Your task to perform on an android device: View the shopping cart on amazon.com. Image 0: 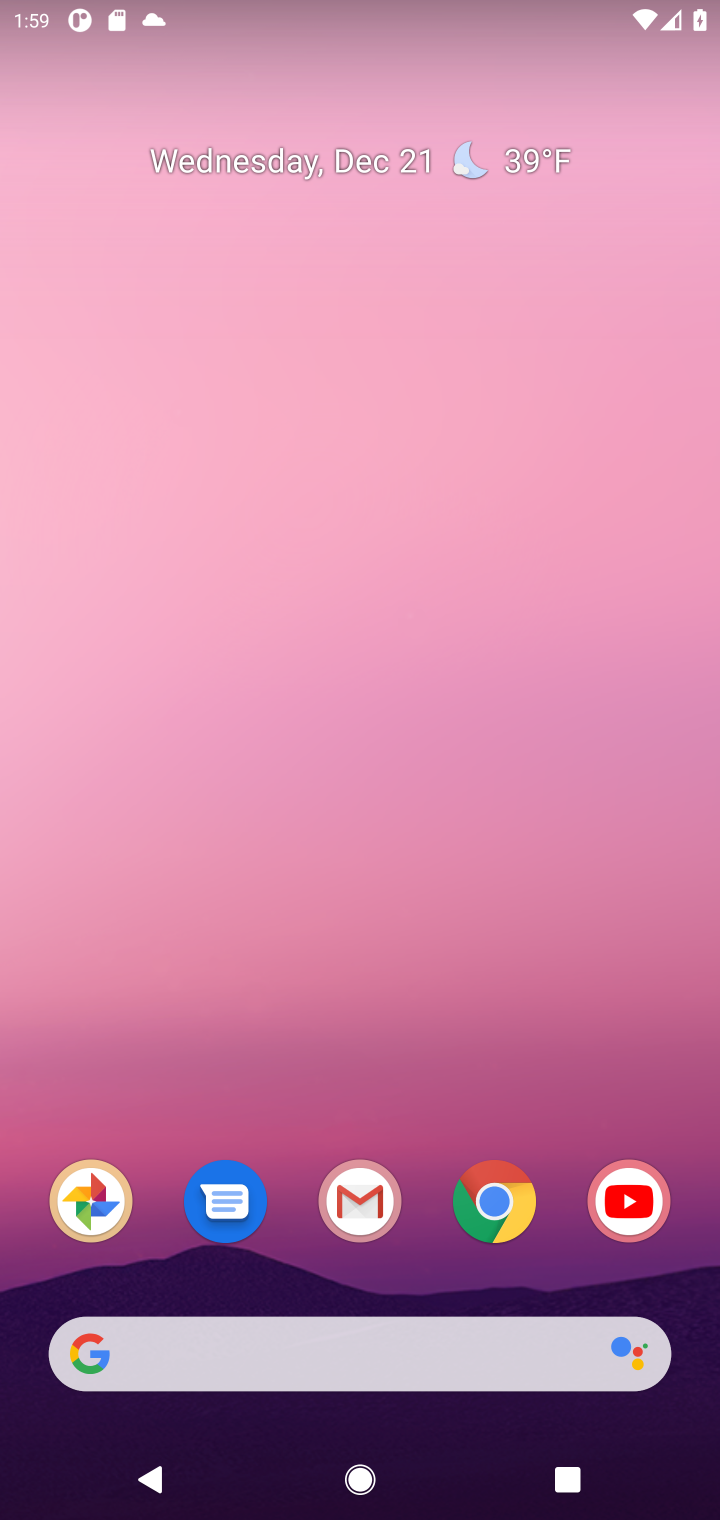
Step 0: click (492, 1206)
Your task to perform on an android device: View the shopping cart on amazon.com. Image 1: 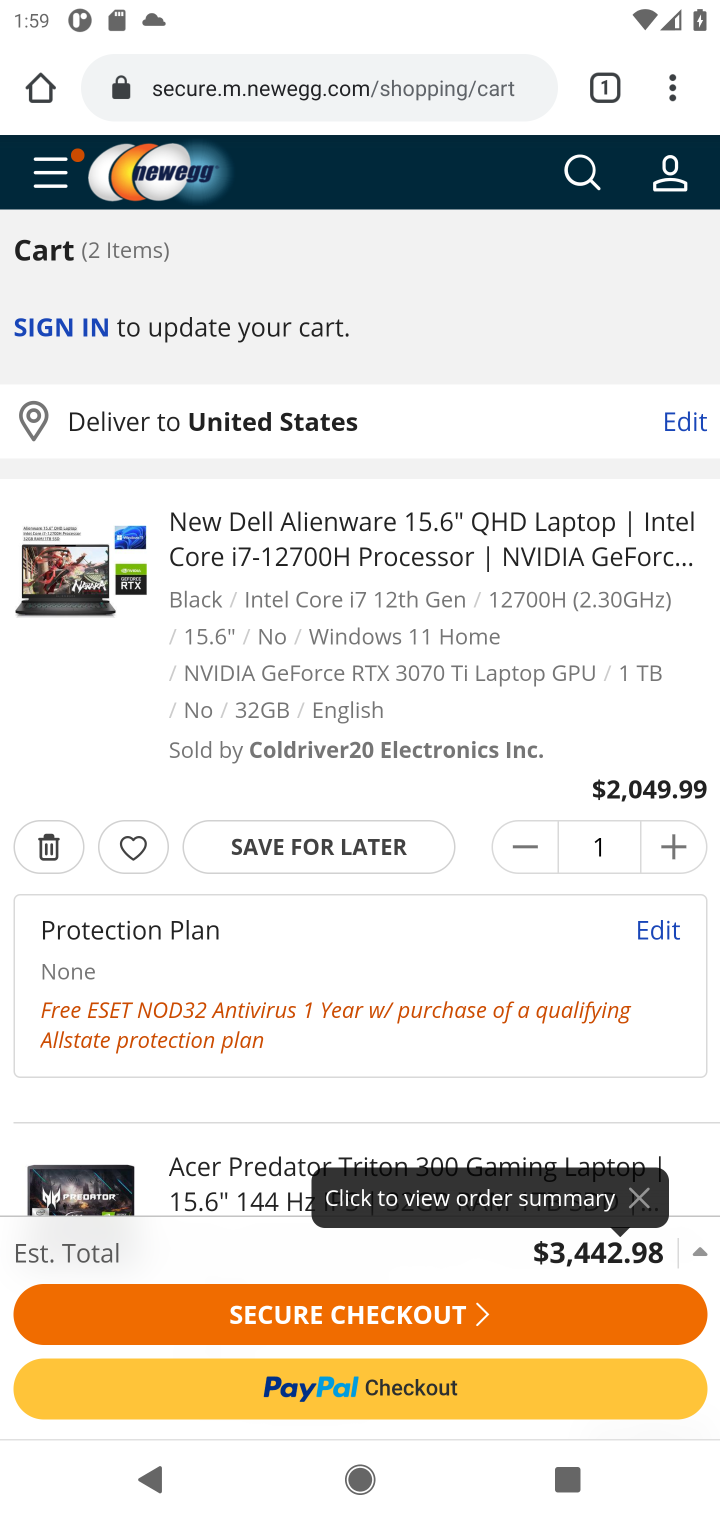
Step 1: click (260, 90)
Your task to perform on an android device: View the shopping cart on amazon.com. Image 2: 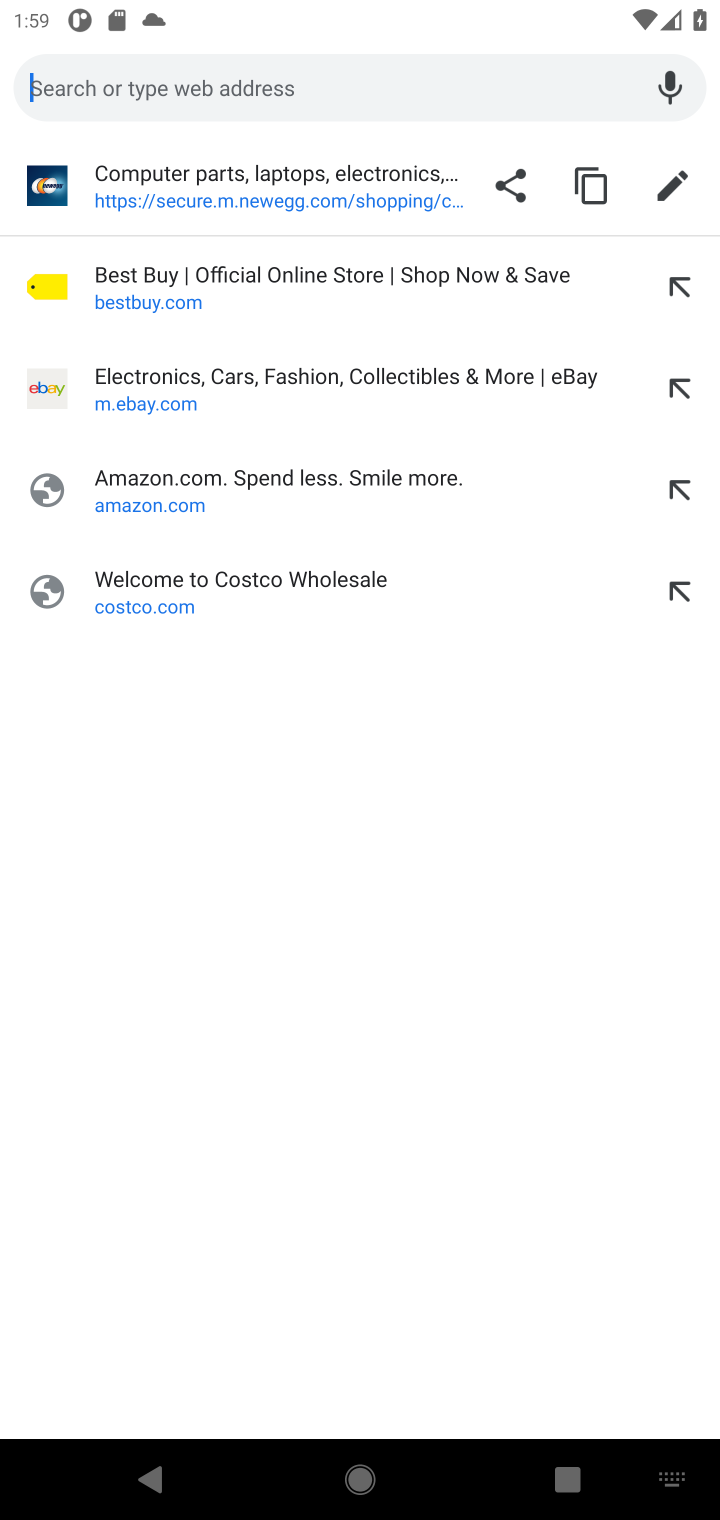
Step 2: click (122, 507)
Your task to perform on an android device: View the shopping cart on amazon.com. Image 3: 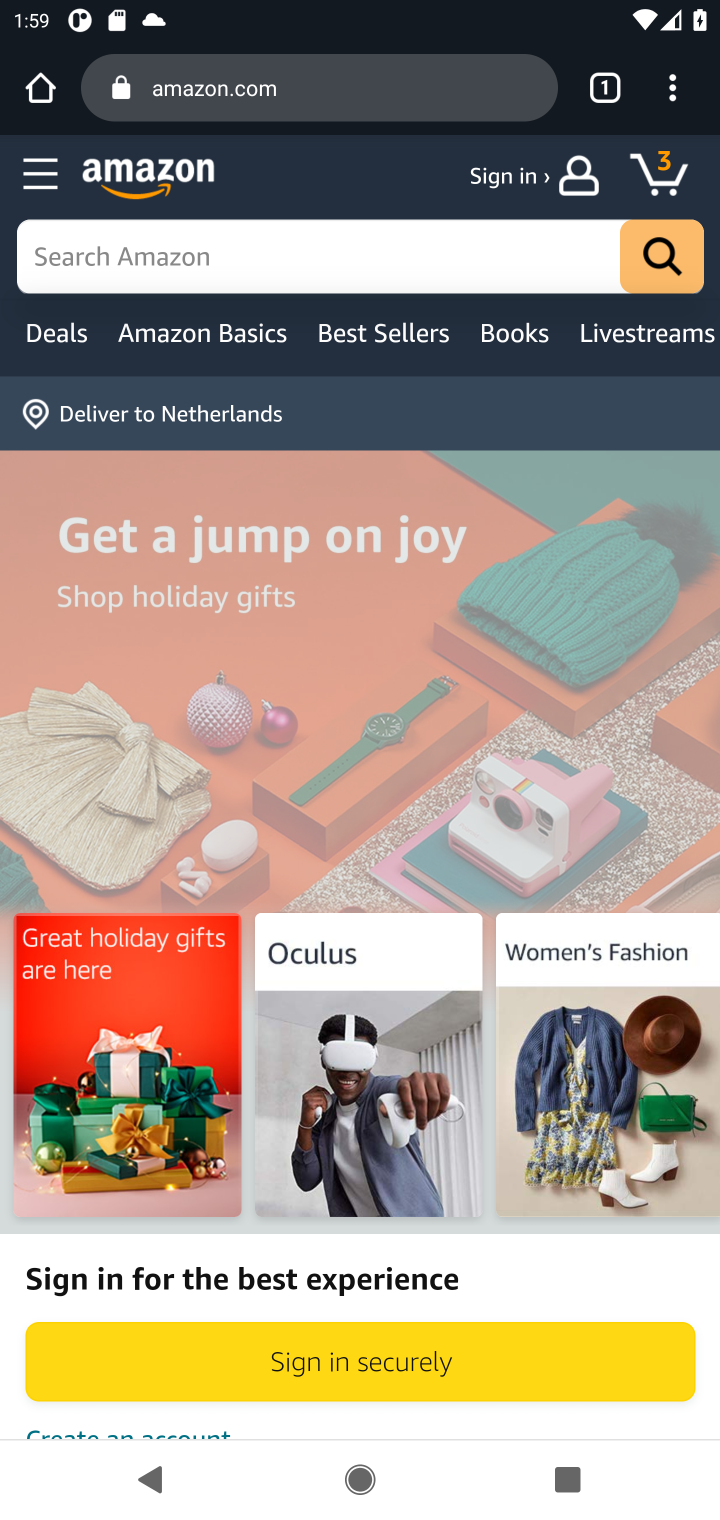
Step 3: click (663, 188)
Your task to perform on an android device: View the shopping cart on amazon.com. Image 4: 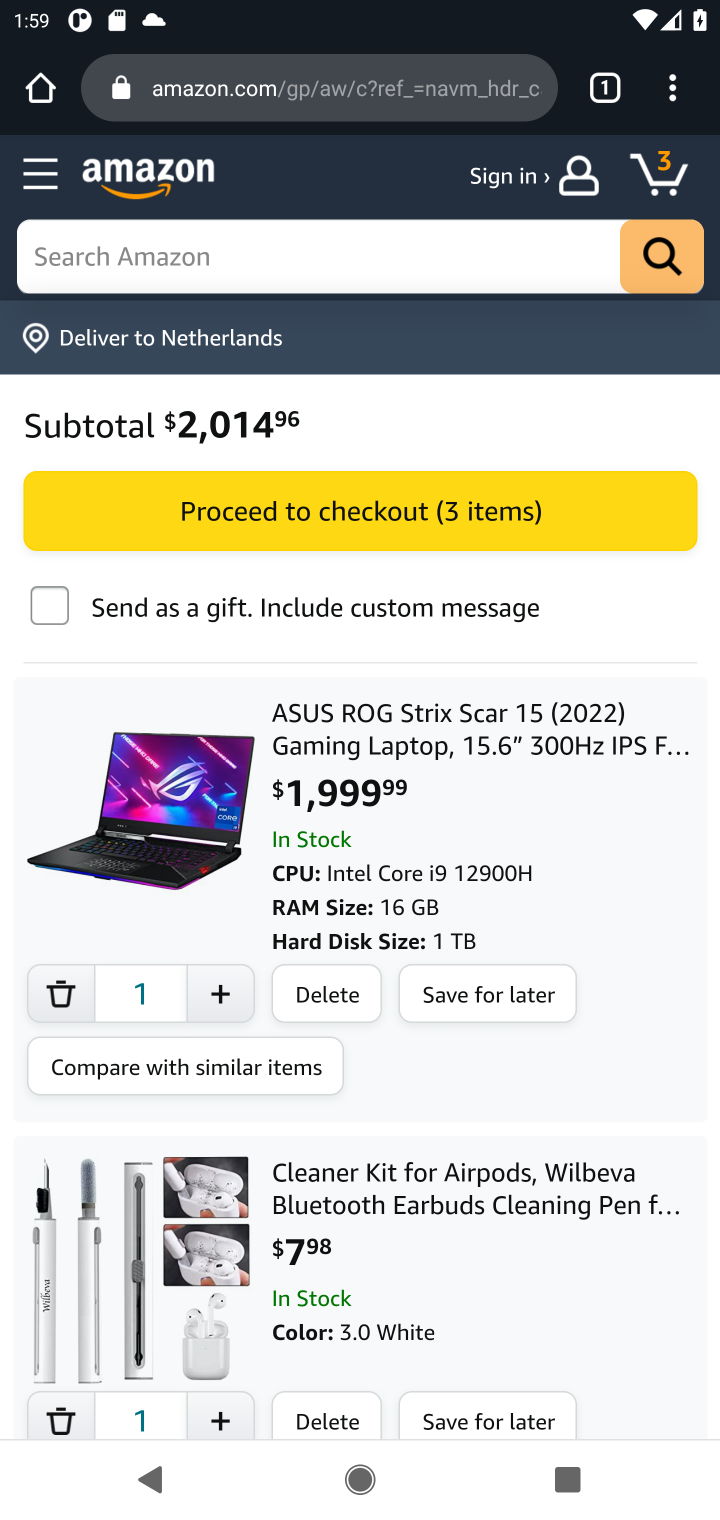
Step 4: task complete